Your task to perform on an android device: open wifi settings Image 0: 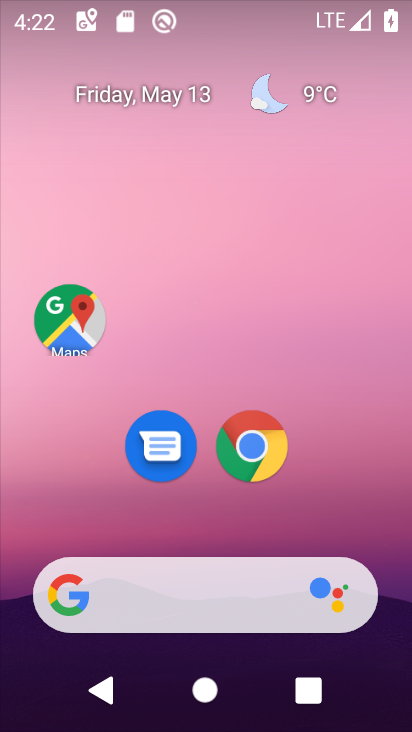
Step 0: drag from (211, 510) to (248, 27)
Your task to perform on an android device: open wifi settings Image 1: 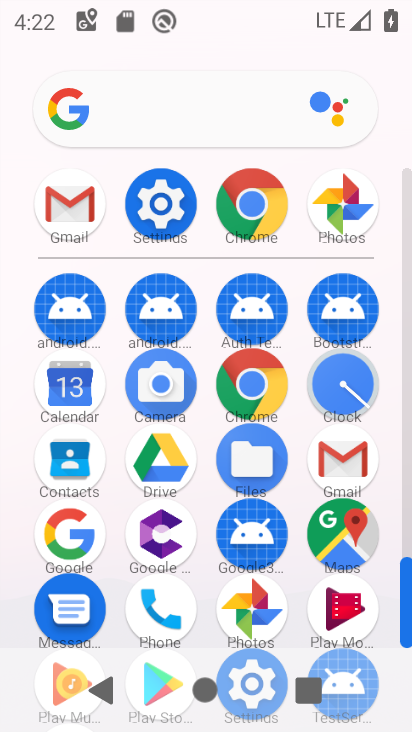
Step 1: click (150, 206)
Your task to perform on an android device: open wifi settings Image 2: 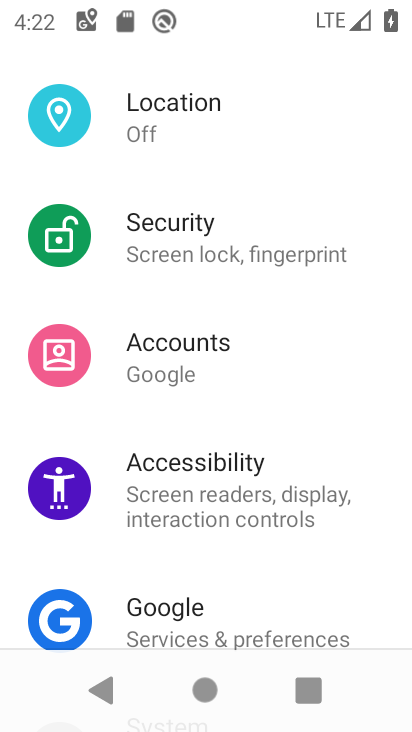
Step 2: drag from (184, 270) to (256, 554)
Your task to perform on an android device: open wifi settings Image 3: 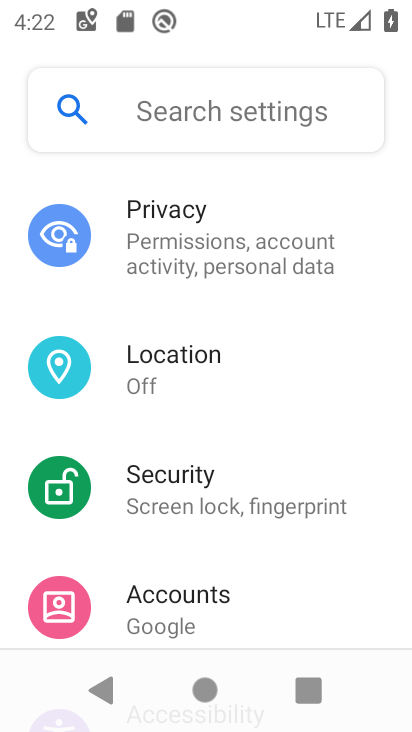
Step 3: drag from (210, 309) to (251, 614)
Your task to perform on an android device: open wifi settings Image 4: 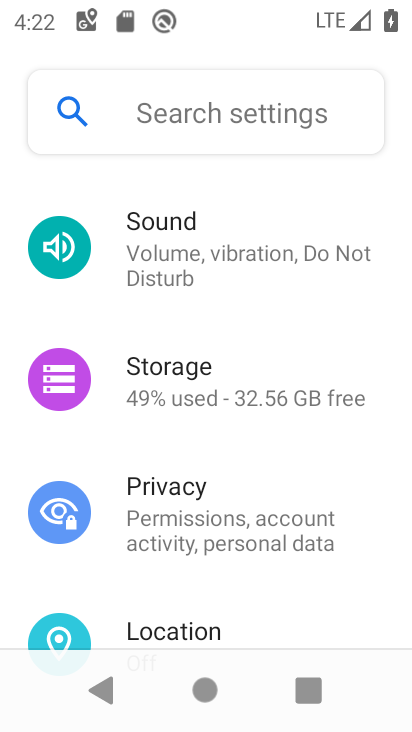
Step 4: drag from (222, 371) to (261, 608)
Your task to perform on an android device: open wifi settings Image 5: 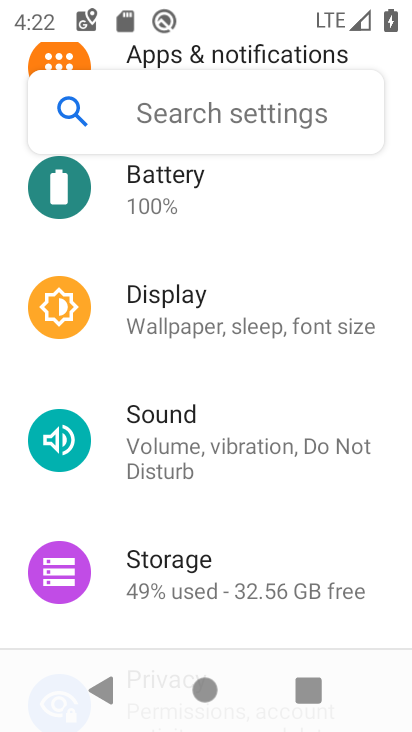
Step 5: drag from (252, 241) to (281, 535)
Your task to perform on an android device: open wifi settings Image 6: 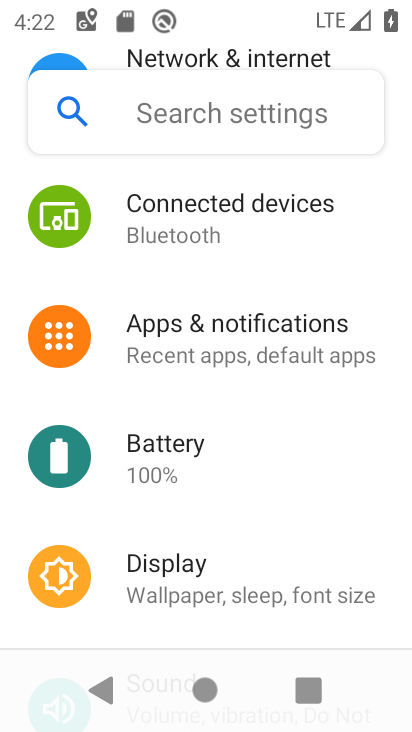
Step 6: drag from (225, 265) to (300, 528)
Your task to perform on an android device: open wifi settings Image 7: 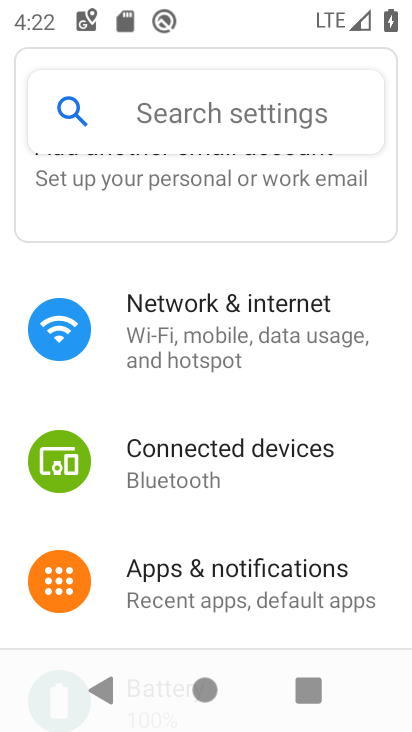
Step 7: click (244, 338)
Your task to perform on an android device: open wifi settings Image 8: 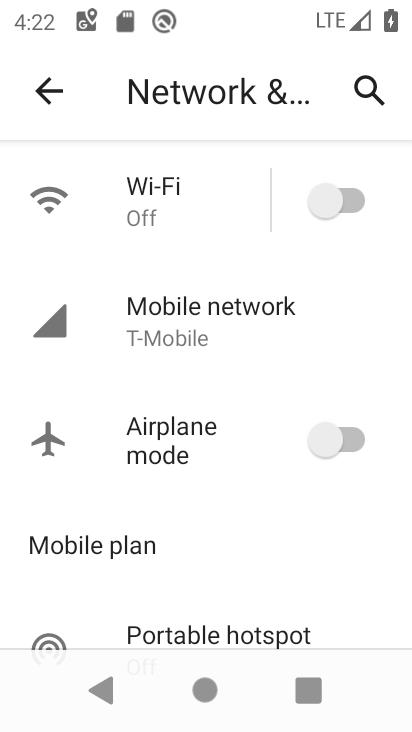
Step 8: click (122, 205)
Your task to perform on an android device: open wifi settings Image 9: 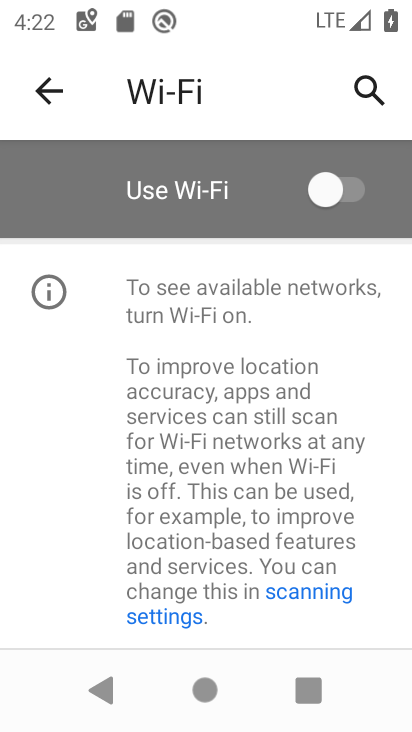
Step 9: task complete